Your task to perform on an android device: What is the recent news? Image 0: 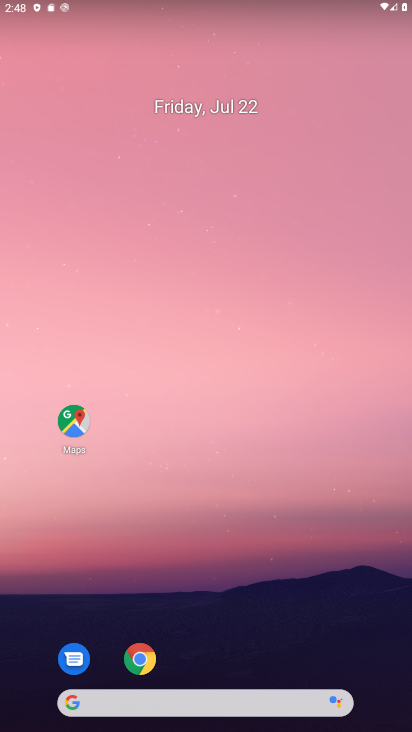
Step 0: task complete